Your task to perform on an android device: Open sound settings Image 0: 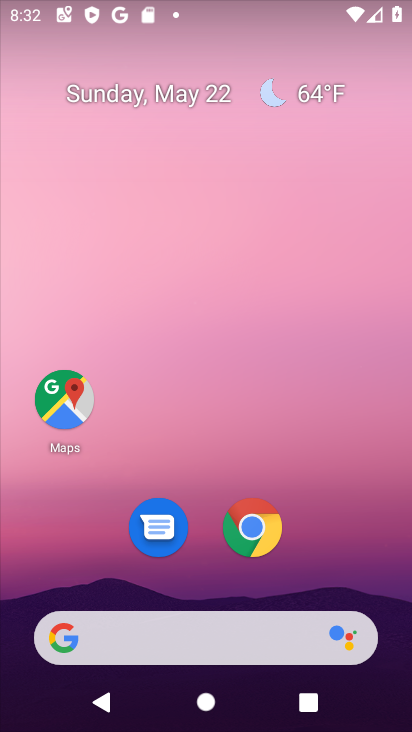
Step 0: drag from (215, 577) to (213, 107)
Your task to perform on an android device: Open sound settings Image 1: 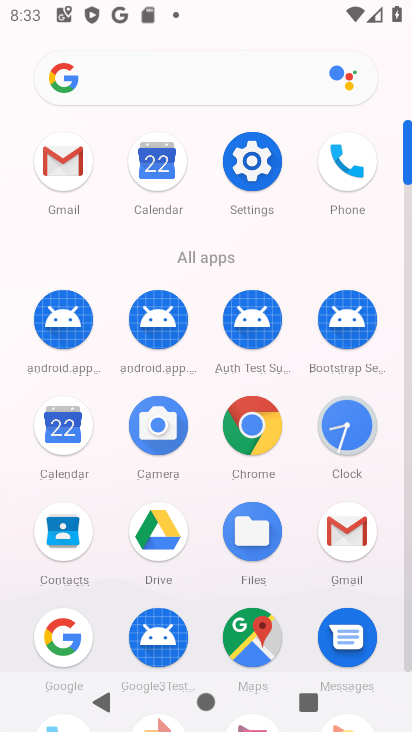
Step 1: click (248, 174)
Your task to perform on an android device: Open sound settings Image 2: 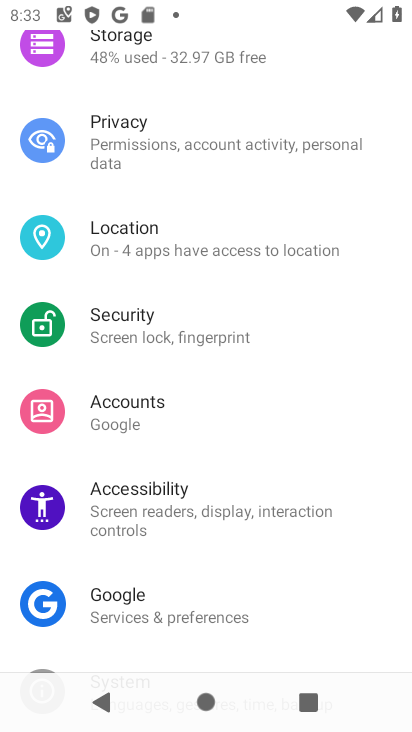
Step 2: drag from (168, 113) to (193, 594)
Your task to perform on an android device: Open sound settings Image 3: 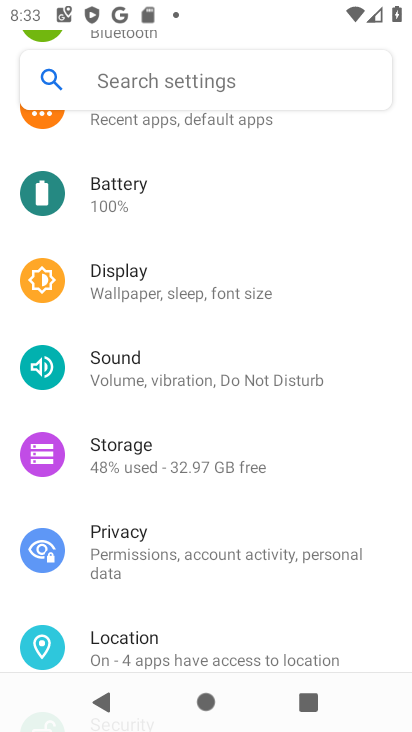
Step 3: click (173, 360)
Your task to perform on an android device: Open sound settings Image 4: 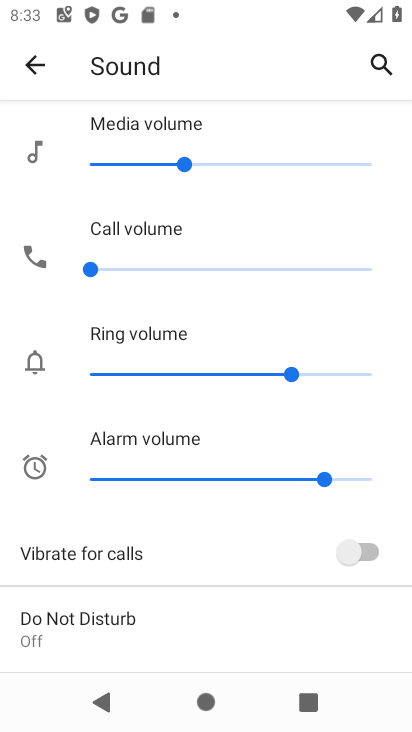
Step 4: drag from (220, 647) to (288, 72)
Your task to perform on an android device: Open sound settings Image 5: 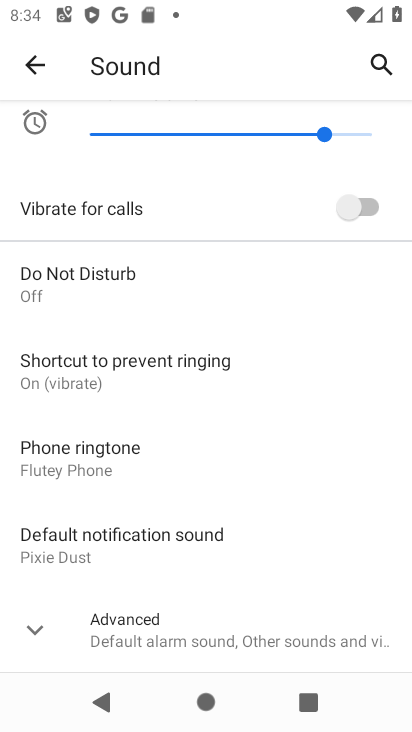
Step 5: click (24, 630)
Your task to perform on an android device: Open sound settings Image 6: 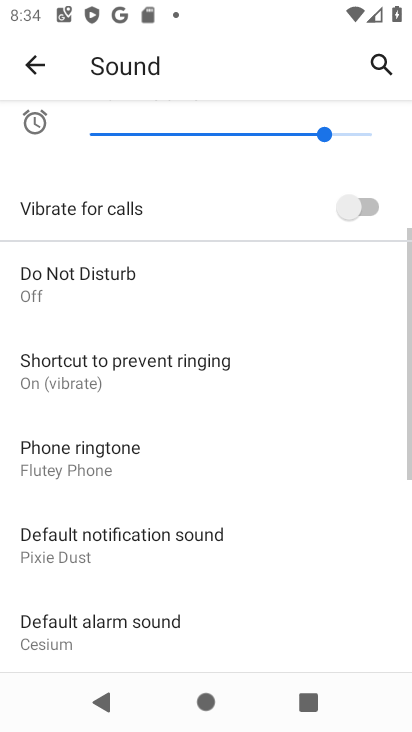
Step 6: task complete